Your task to perform on an android device: turn notification dots on Image 0: 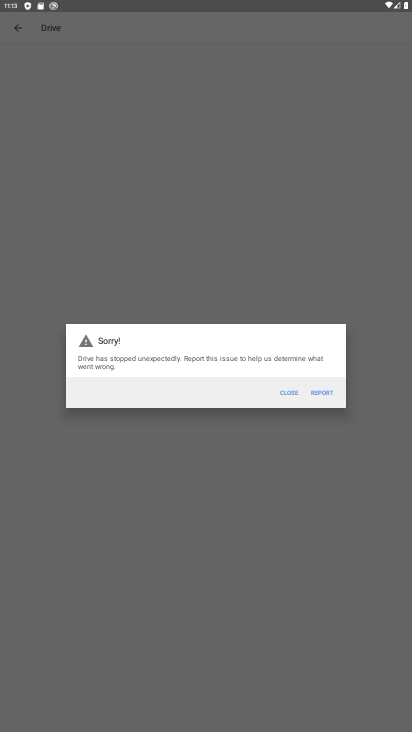
Step 0: press home button
Your task to perform on an android device: turn notification dots on Image 1: 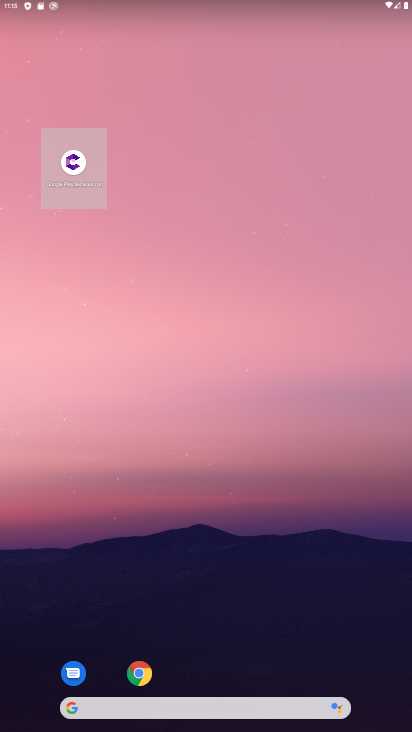
Step 1: drag from (315, 692) to (298, 4)
Your task to perform on an android device: turn notification dots on Image 2: 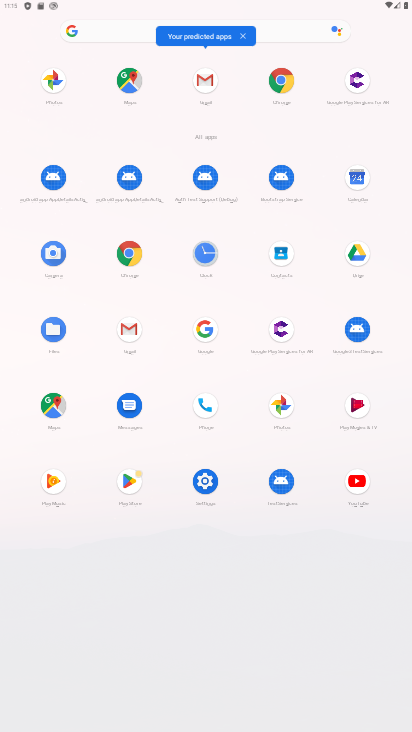
Step 2: click (186, 479)
Your task to perform on an android device: turn notification dots on Image 3: 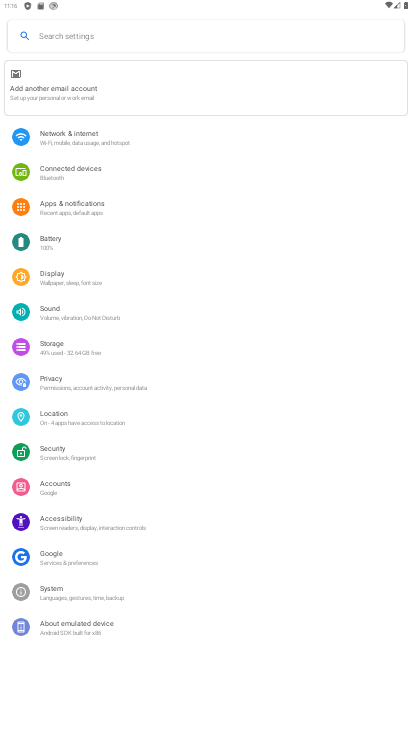
Step 3: click (111, 204)
Your task to perform on an android device: turn notification dots on Image 4: 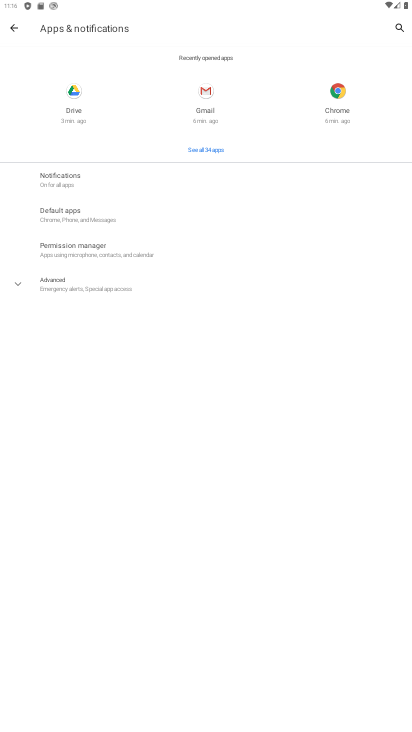
Step 4: click (97, 182)
Your task to perform on an android device: turn notification dots on Image 5: 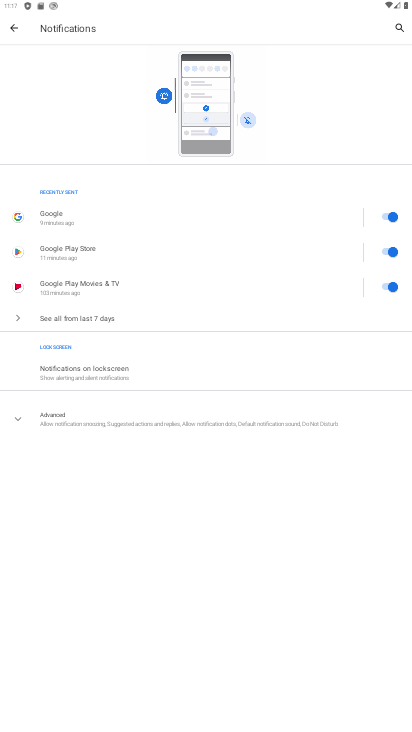
Step 5: click (111, 375)
Your task to perform on an android device: turn notification dots on Image 6: 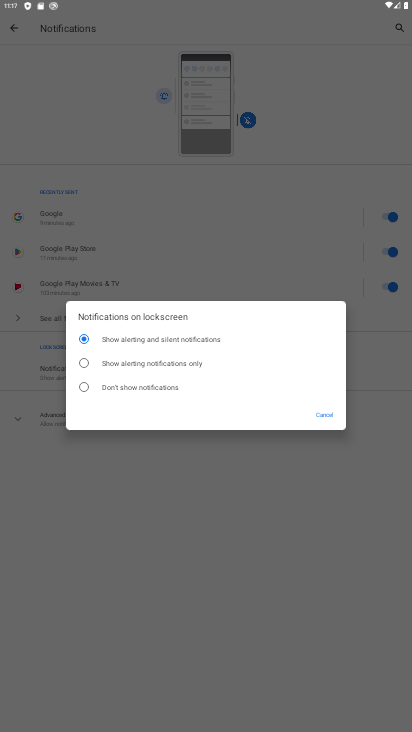
Step 6: click (70, 418)
Your task to perform on an android device: turn notification dots on Image 7: 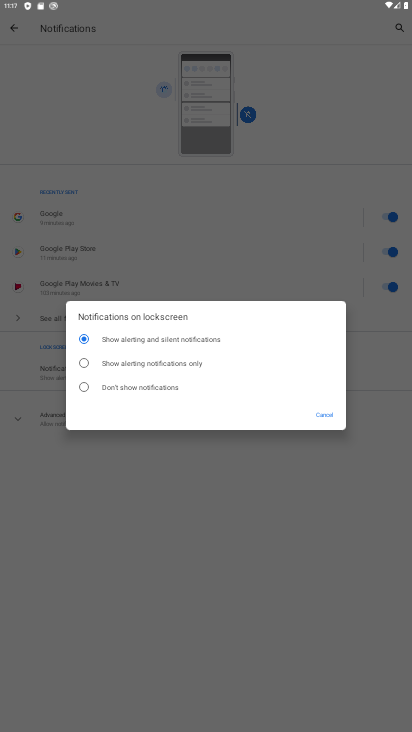
Step 7: click (326, 413)
Your task to perform on an android device: turn notification dots on Image 8: 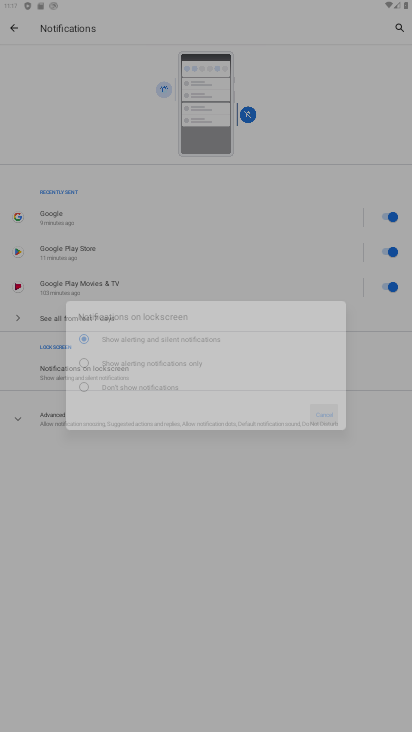
Step 8: click (42, 419)
Your task to perform on an android device: turn notification dots on Image 9: 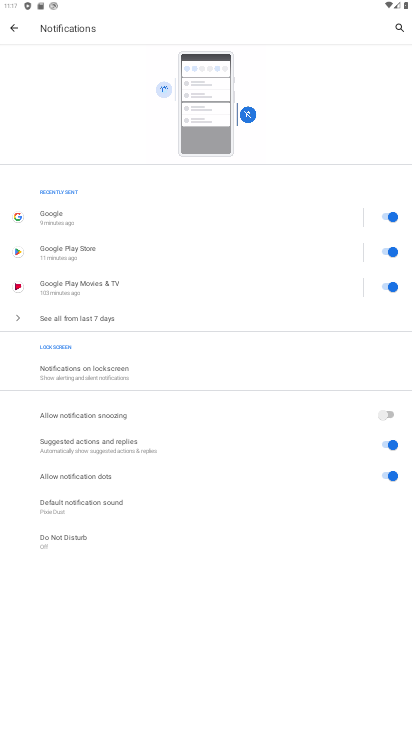
Step 9: click (42, 419)
Your task to perform on an android device: turn notification dots on Image 10: 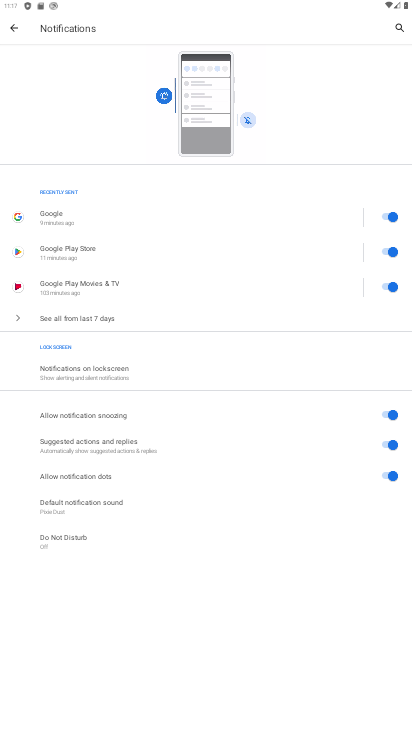
Step 10: task complete